Your task to perform on an android device: Open the stopwatch Image 0: 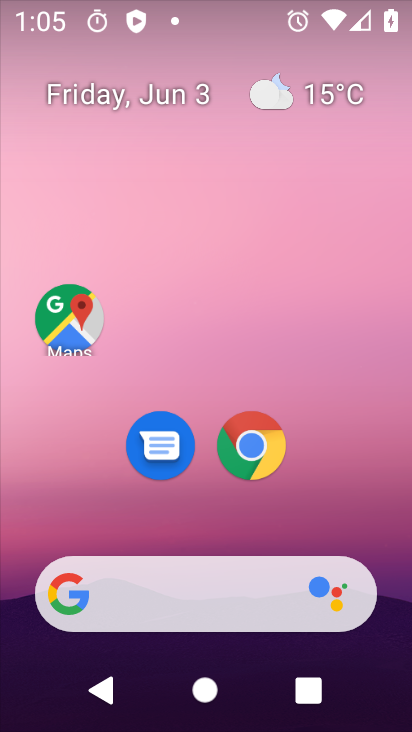
Step 0: drag from (216, 501) to (269, 37)
Your task to perform on an android device: Open the stopwatch Image 1: 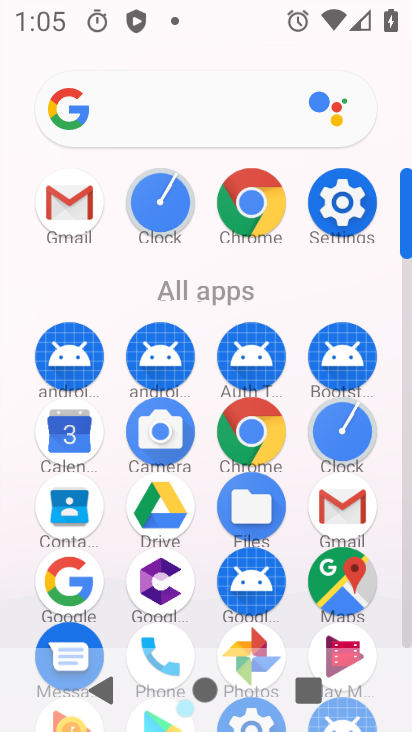
Step 1: click (171, 232)
Your task to perform on an android device: Open the stopwatch Image 2: 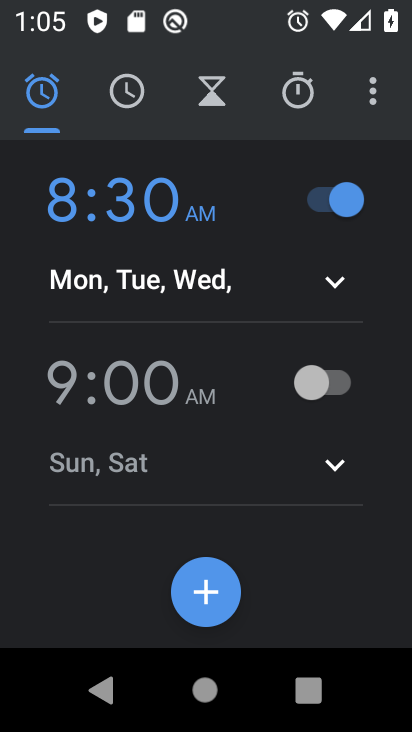
Step 2: click (310, 132)
Your task to perform on an android device: Open the stopwatch Image 3: 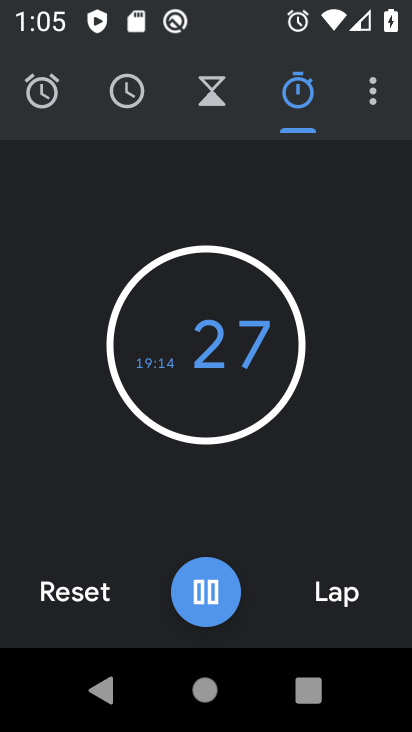
Step 3: task complete